Your task to perform on an android device: turn off picture-in-picture Image 0: 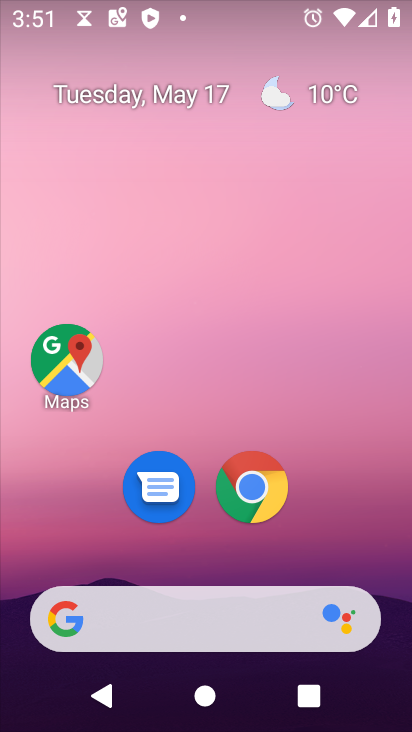
Step 0: drag from (391, 615) to (321, 41)
Your task to perform on an android device: turn off picture-in-picture Image 1: 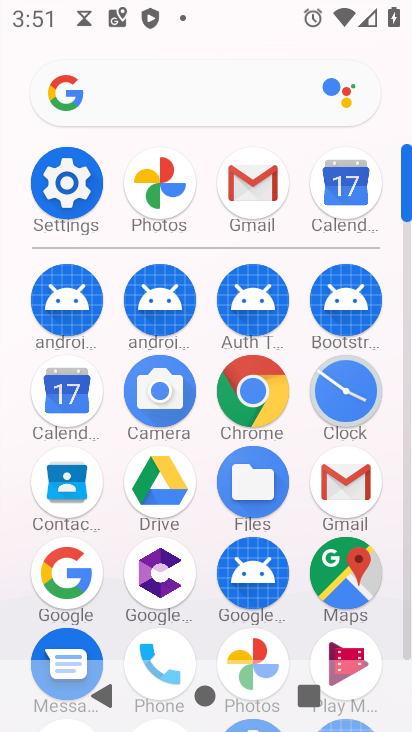
Step 1: click (406, 642)
Your task to perform on an android device: turn off picture-in-picture Image 2: 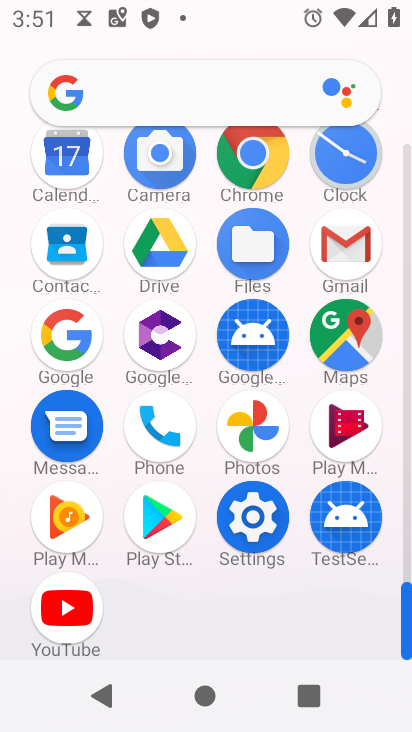
Step 2: click (252, 515)
Your task to perform on an android device: turn off picture-in-picture Image 3: 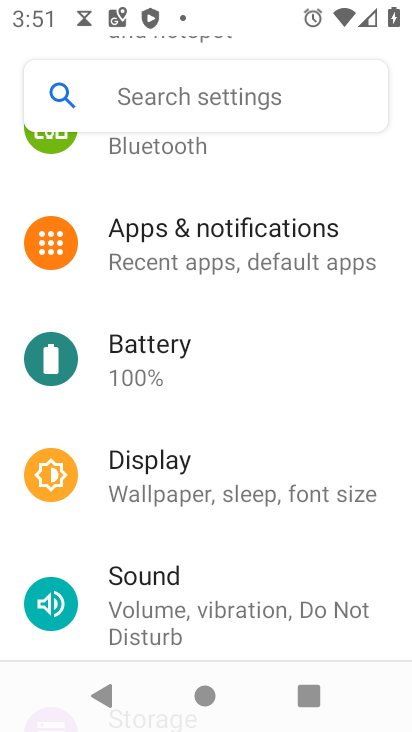
Step 3: click (205, 241)
Your task to perform on an android device: turn off picture-in-picture Image 4: 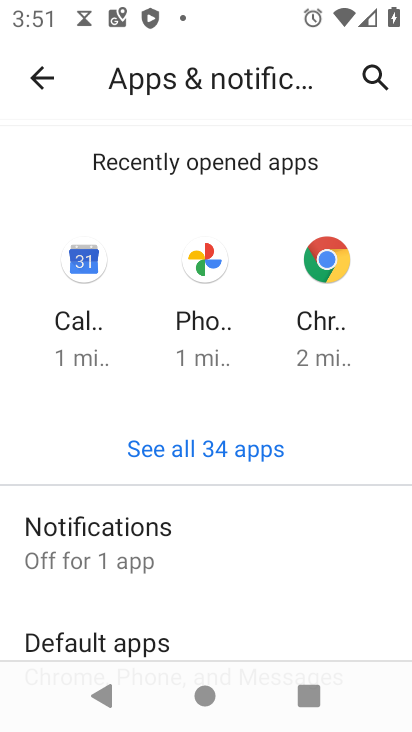
Step 4: drag from (247, 631) to (275, 154)
Your task to perform on an android device: turn off picture-in-picture Image 5: 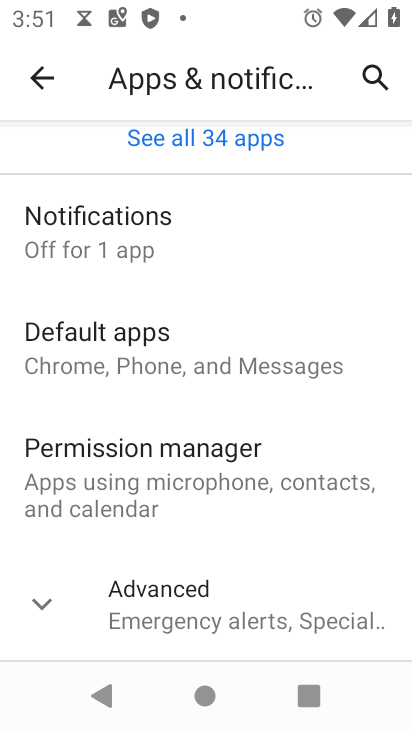
Step 5: click (43, 604)
Your task to perform on an android device: turn off picture-in-picture Image 6: 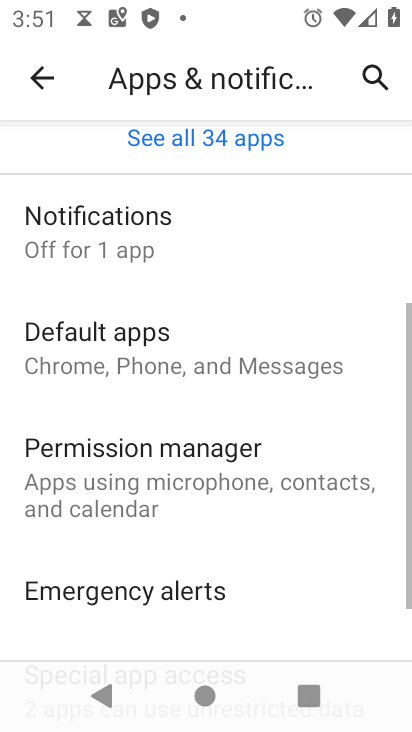
Step 6: drag from (290, 635) to (298, 122)
Your task to perform on an android device: turn off picture-in-picture Image 7: 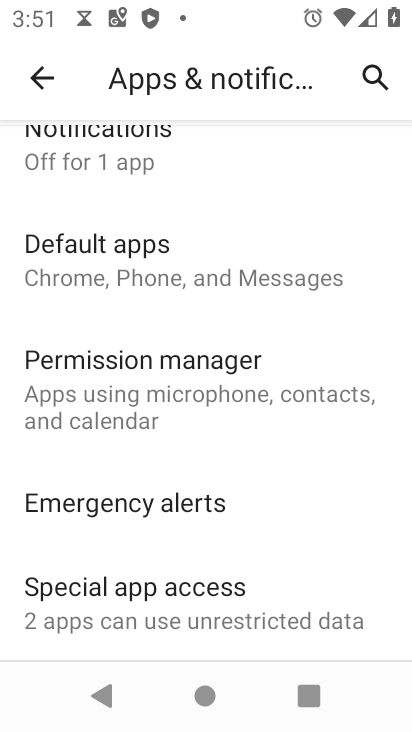
Step 7: click (107, 600)
Your task to perform on an android device: turn off picture-in-picture Image 8: 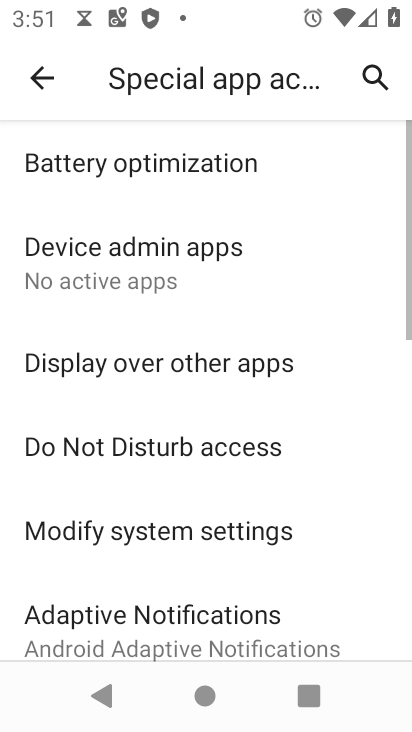
Step 8: drag from (347, 618) to (313, 102)
Your task to perform on an android device: turn off picture-in-picture Image 9: 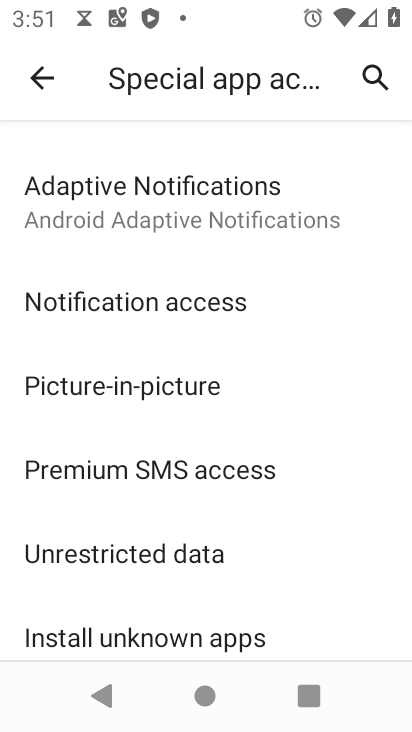
Step 9: click (78, 379)
Your task to perform on an android device: turn off picture-in-picture Image 10: 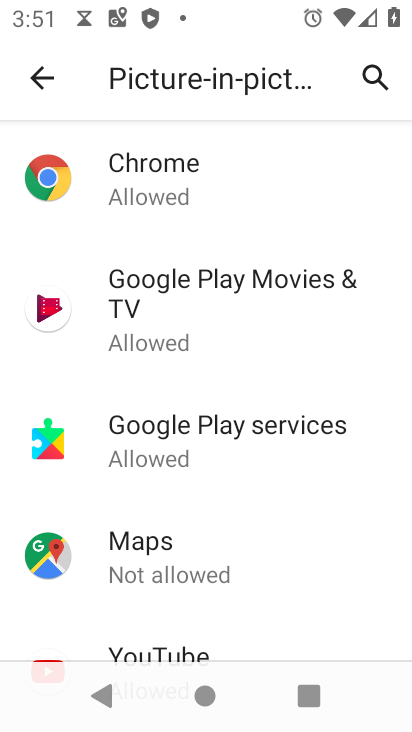
Step 10: drag from (238, 617) to (266, 243)
Your task to perform on an android device: turn off picture-in-picture Image 11: 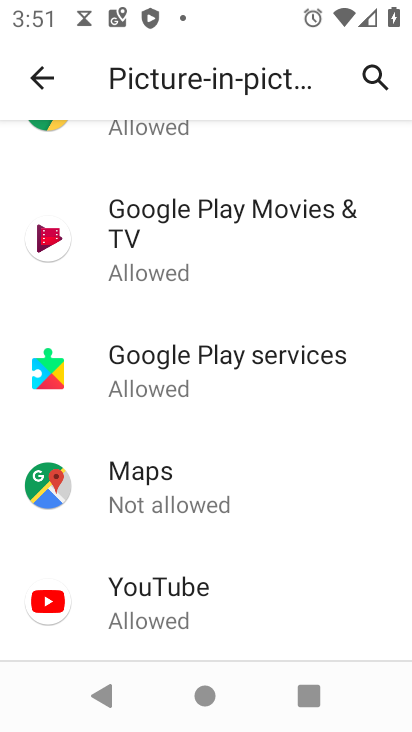
Step 11: click (180, 480)
Your task to perform on an android device: turn off picture-in-picture Image 12: 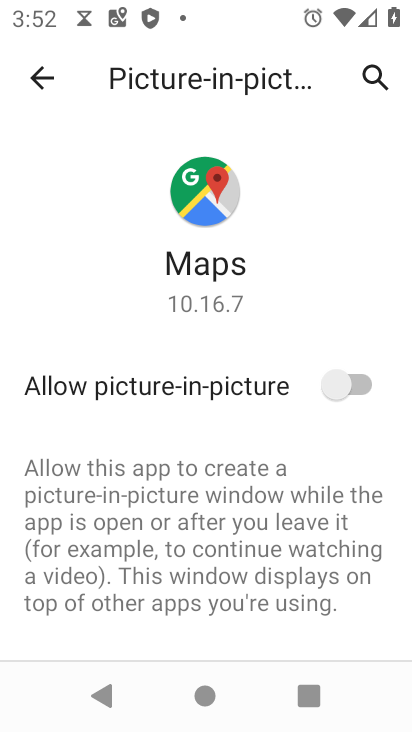
Step 12: task complete